Your task to perform on an android device: star an email in the gmail app Image 0: 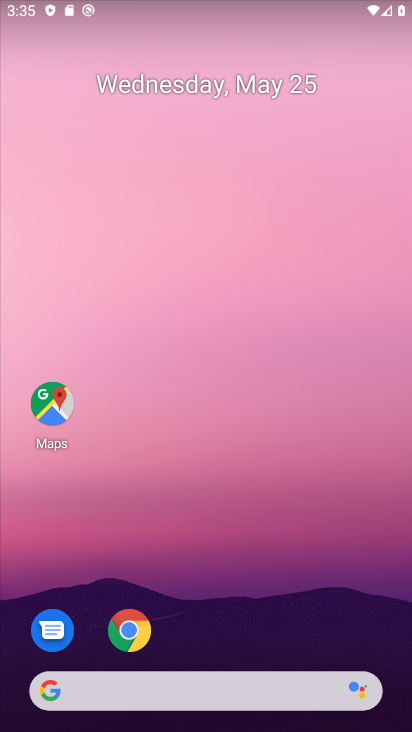
Step 0: drag from (248, 669) to (218, 0)
Your task to perform on an android device: star an email in the gmail app Image 1: 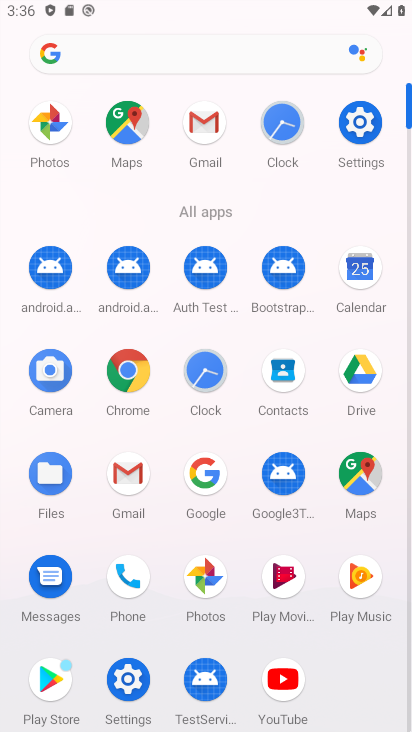
Step 1: click (122, 459)
Your task to perform on an android device: star an email in the gmail app Image 2: 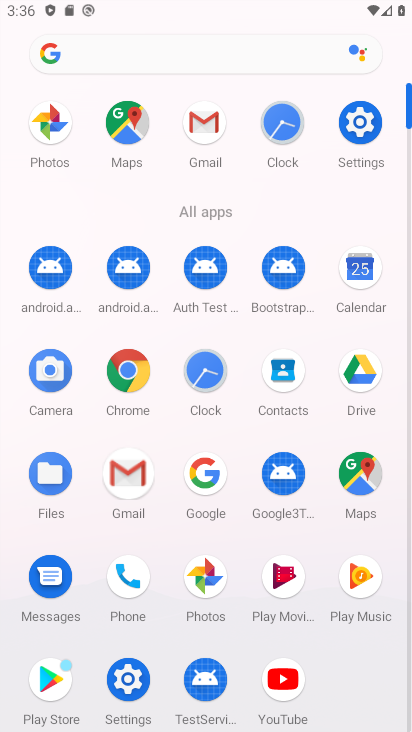
Step 2: click (124, 461)
Your task to perform on an android device: star an email in the gmail app Image 3: 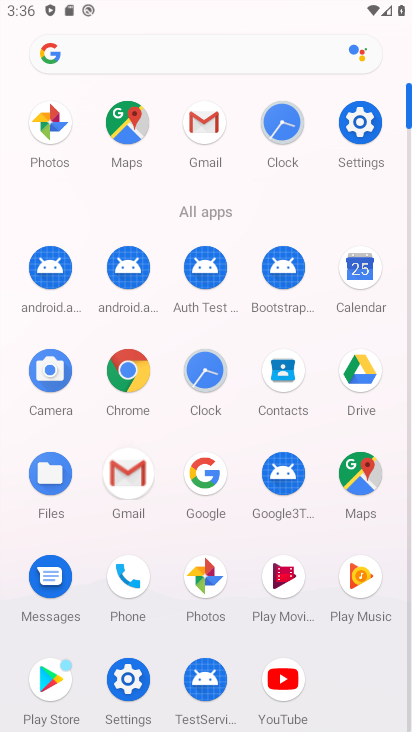
Step 3: click (124, 490)
Your task to perform on an android device: star an email in the gmail app Image 4: 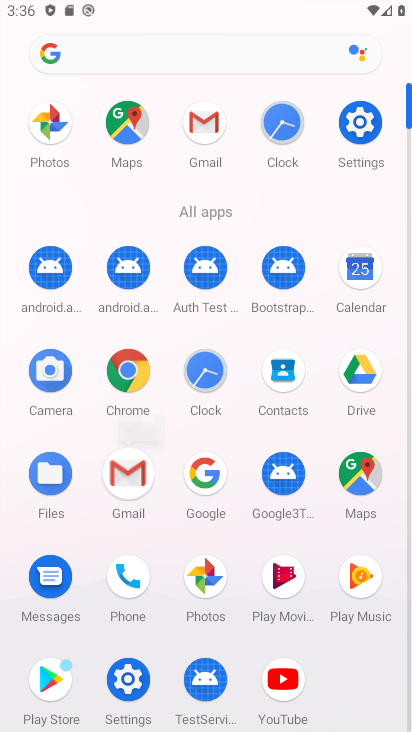
Step 4: click (124, 482)
Your task to perform on an android device: star an email in the gmail app Image 5: 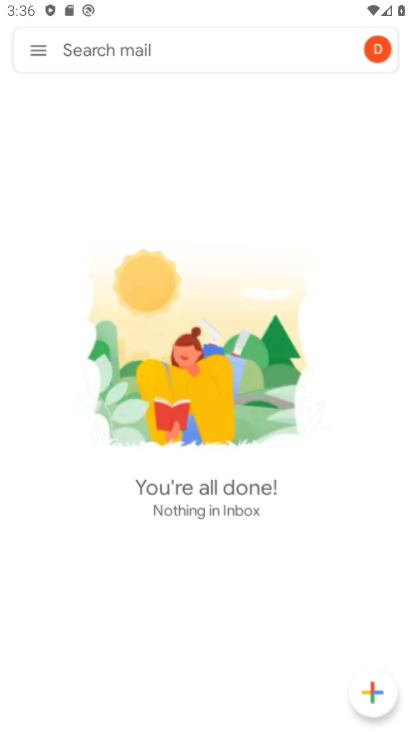
Step 5: click (124, 465)
Your task to perform on an android device: star an email in the gmail app Image 6: 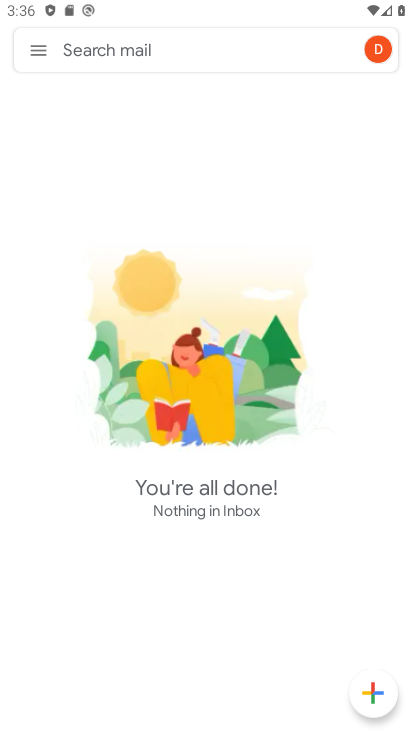
Step 6: click (124, 464)
Your task to perform on an android device: star an email in the gmail app Image 7: 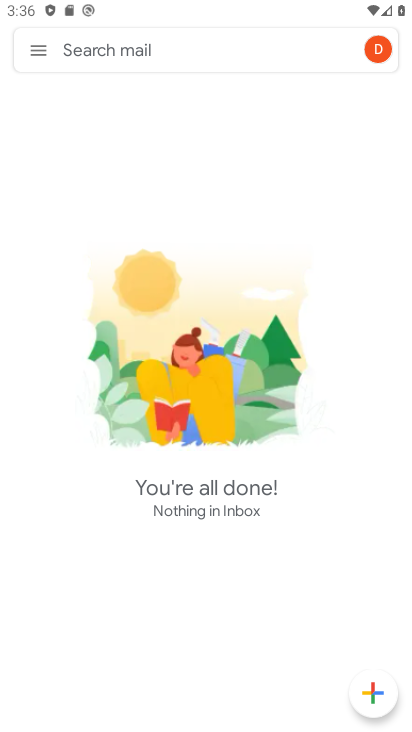
Step 7: click (40, 45)
Your task to perform on an android device: star an email in the gmail app Image 8: 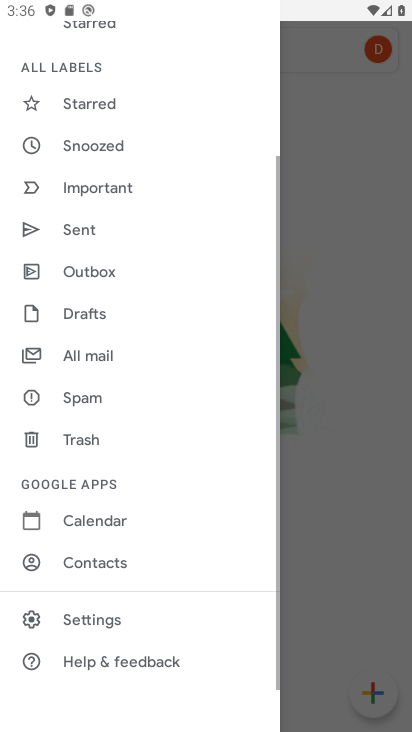
Step 8: click (43, 48)
Your task to perform on an android device: star an email in the gmail app Image 9: 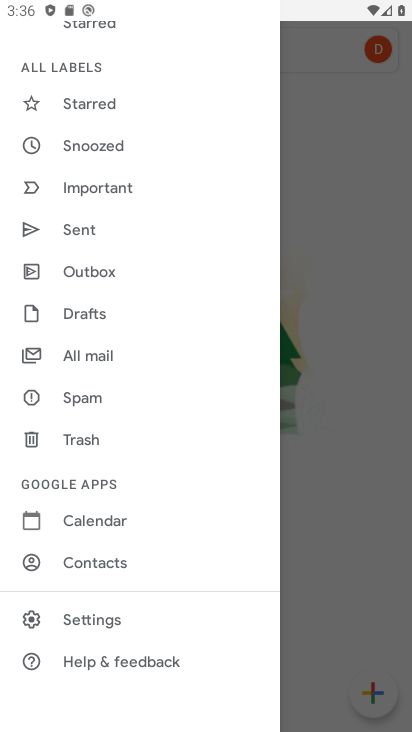
Step 9: click (80, 333)
Your task to perform on an android device: star an email in the gmail app Image 10: 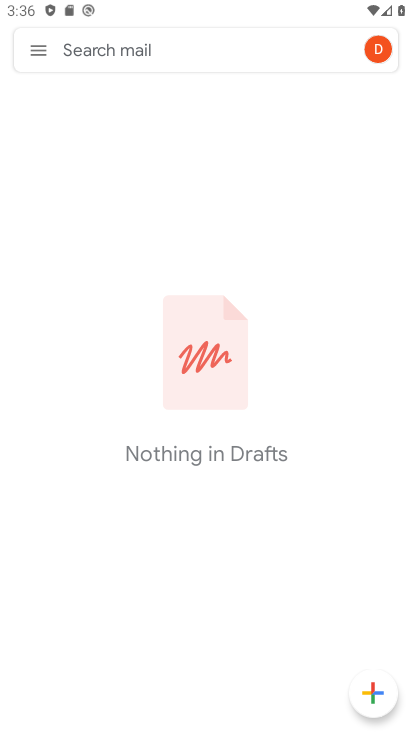
Step 10: click (91, 357)
Your task to perform on an android device: star an email in the gmail app Image 11: 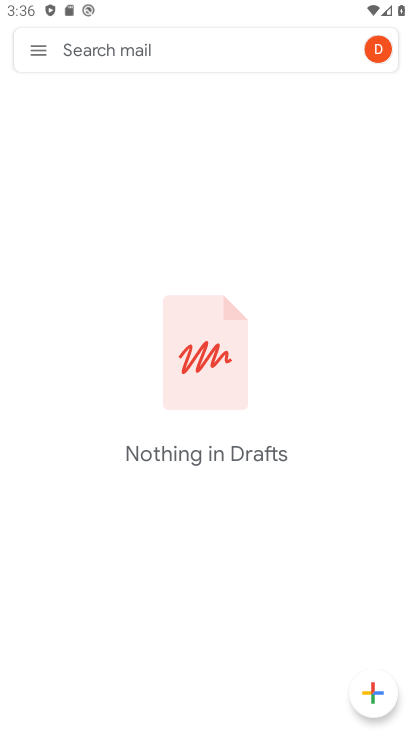
Step 11: click (35, 49)
Your task to perform on an android device: star an email in the gmail app Image 12: 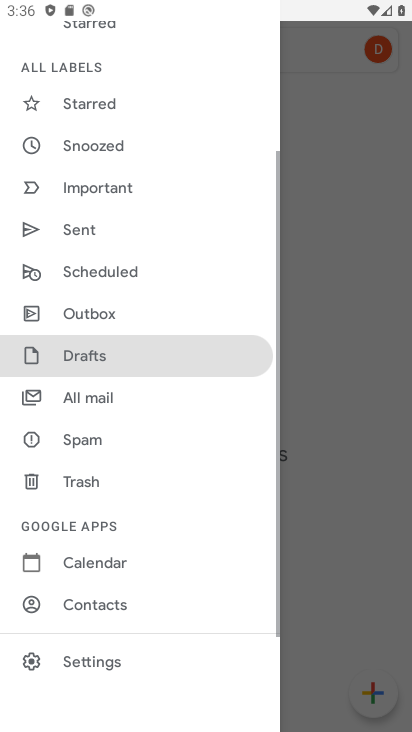
Step 12: click (35, 49)
Your task to perform on an android device: star an email in the gmail app Image 13: 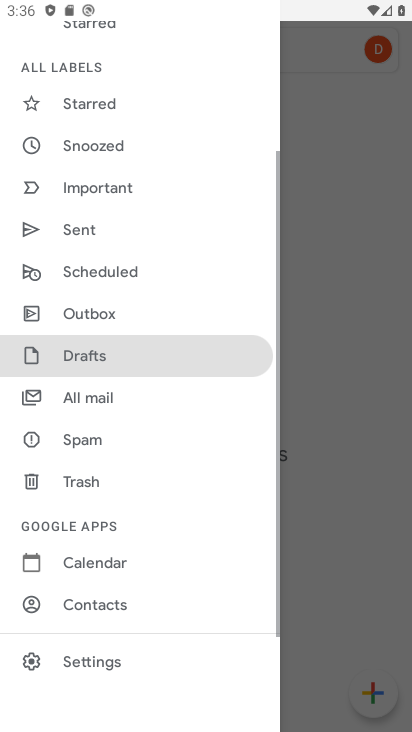
Step 13: click (35, 49)
Your task to perform on an android device: star an email in the gmail app Image 14: 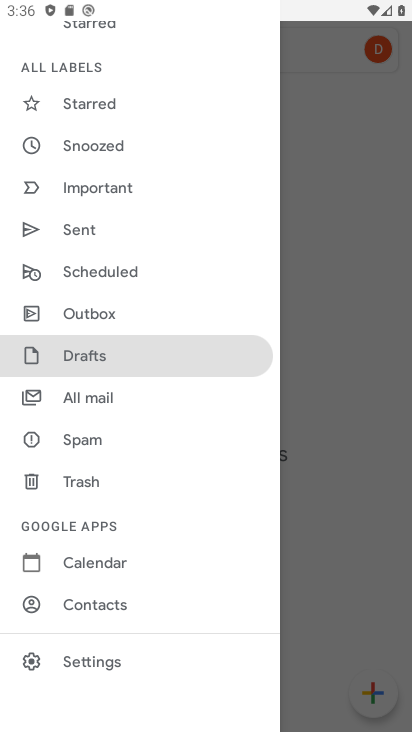
Step 14: click (92, 399)
Your task to perform on an android device: star an email in the gmail app Image 15: 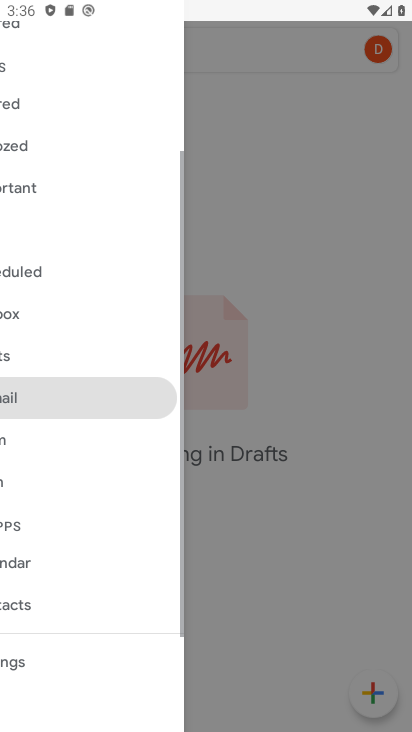
Step 15: click (93, 399)
Your task to perform on an android device: star an email in the gmail app Image 16: 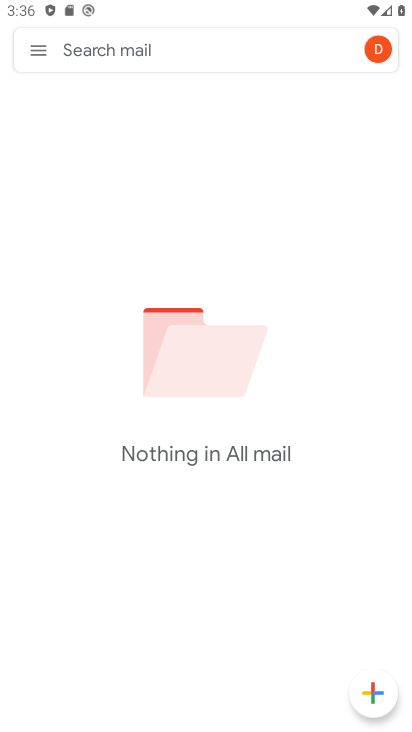
Step 16: task complete